Your task to perform on an android device: turn on showing notifications on the lock screen Image 0: 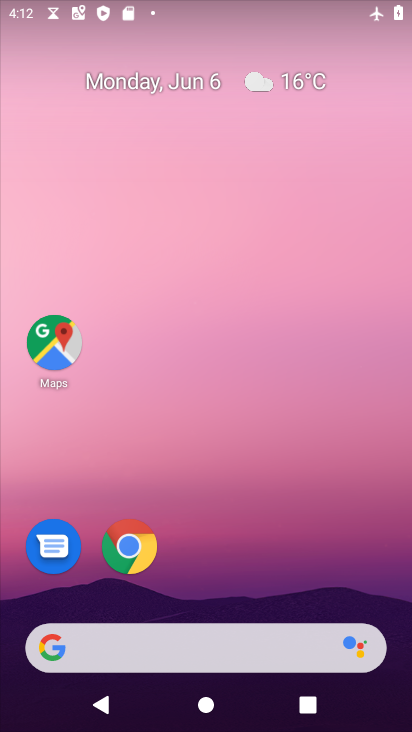
Step 0: drag from (296, 483) to (386, 55)
Your task to perform on an android device: turn on showing notifications on the lock screen Image 1: 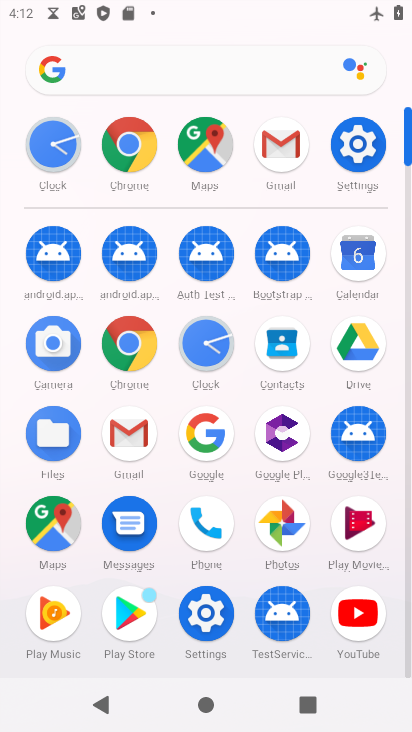
Step 1: click (356, 162)
Your task to perform on an android device: turn on showing notifications on the lock screen Image 2: 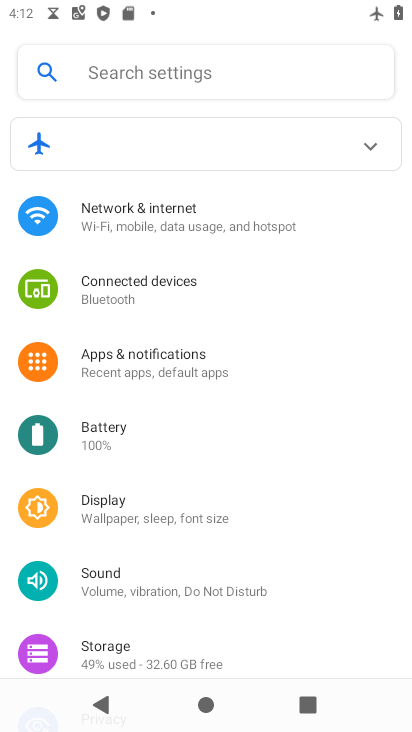
Step 2: click (133, 361)
Your task to perform on an android device: turn on showing notifications on the lock screen Image 3: 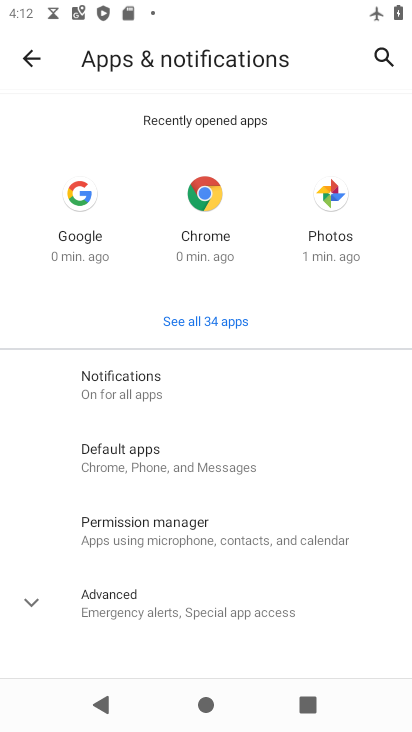
Step 3: click (133, 409)
Your task to perform on an android device: turn on showing notifications on the lock screen Image 4: 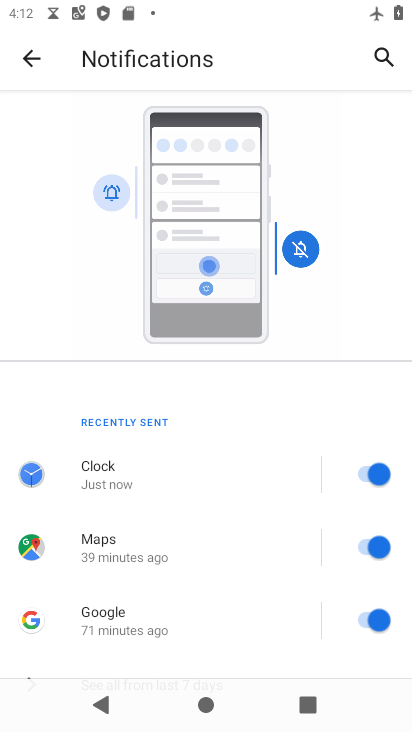
Step 4: drag from (175, 600) to (315, 137)
Your task to perform on an android device: turn on showing notifications on the lock screen Image 5: 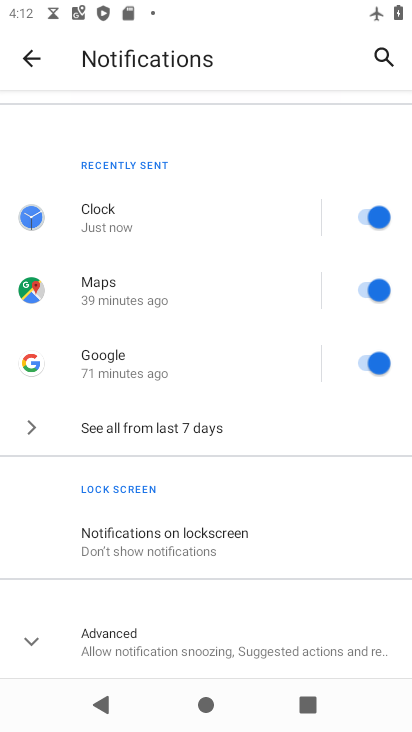
Step 5: click (147, 537)
Your task to perform on an android device: turn on showing notifications on the lock screen Image 6: 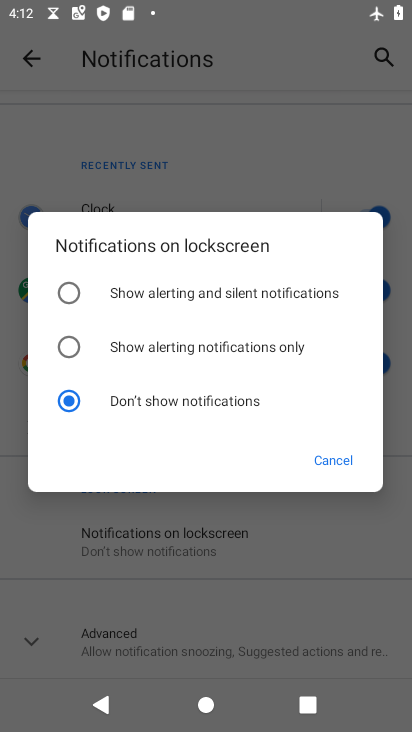
Step 6: click (76, 296)
Your task to perform on an android device: turn on showing notifications on the lock screen Image 7: 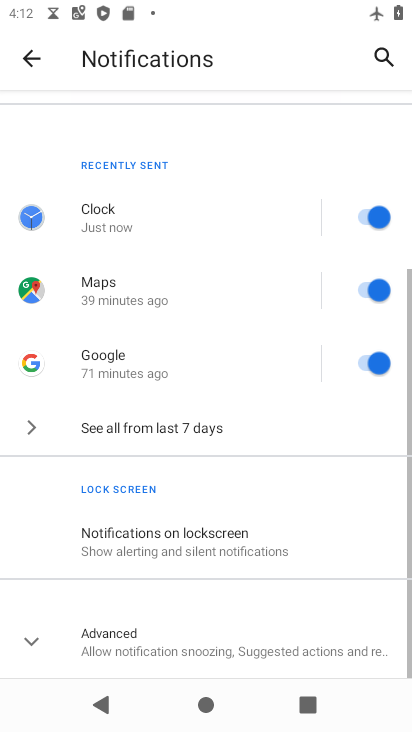
Step 7: click (54, 354)
Your task to perform on an android device: turn on showing notifications on the lock screen Image 8: 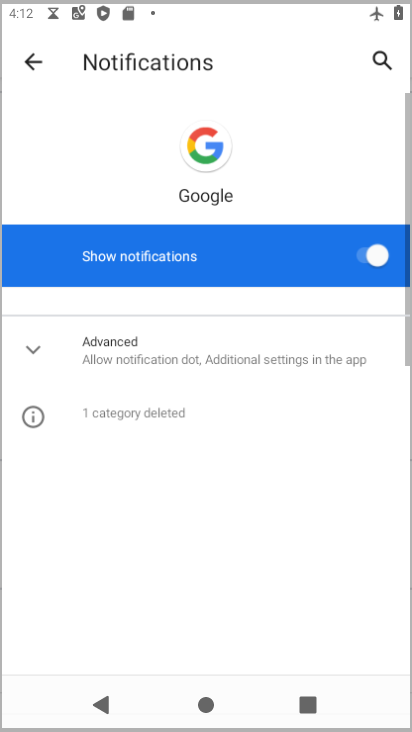
Step 8: click (120, 533)
Your task to perform on an android device: turn on showing notifications on the lock screen Image 9: 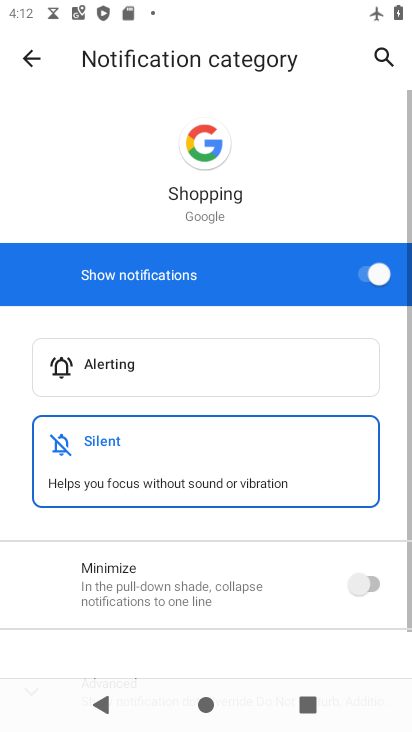
Step 9: click (47, 54)
Your task to perform on an android device: turn on showing notifications on the lock screen Image 10: 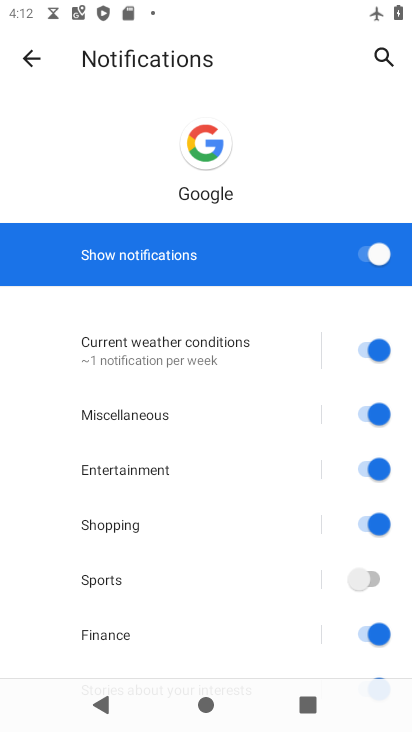
Step 10: click (43, 74)
Your task to perform on an android device: turn on showing notifications on the lock screen Image 11: 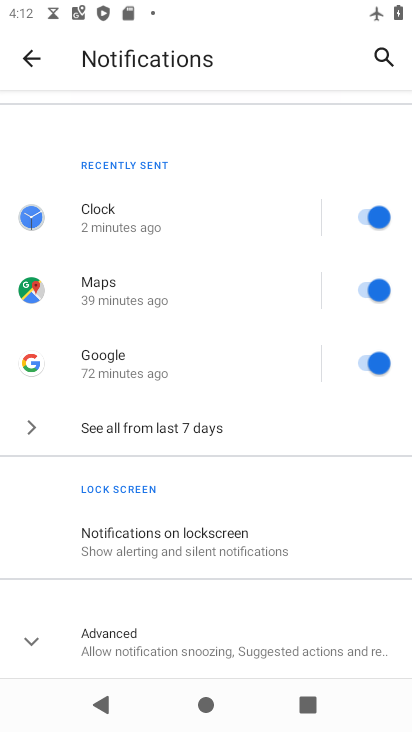
Step 11: click (185, 539)
Your task to perform on an android device: turn on showing notifications on the lock screen Image 12: 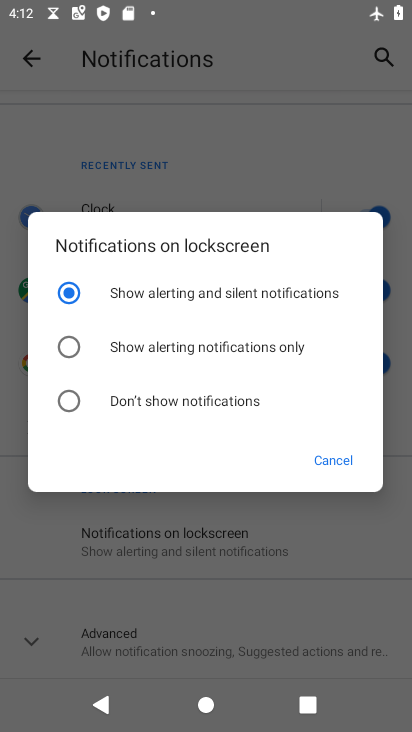
Step 12: click (158, 347)
Your task to perform on an android device: turn on showing notifications on the lock screen Image 13: 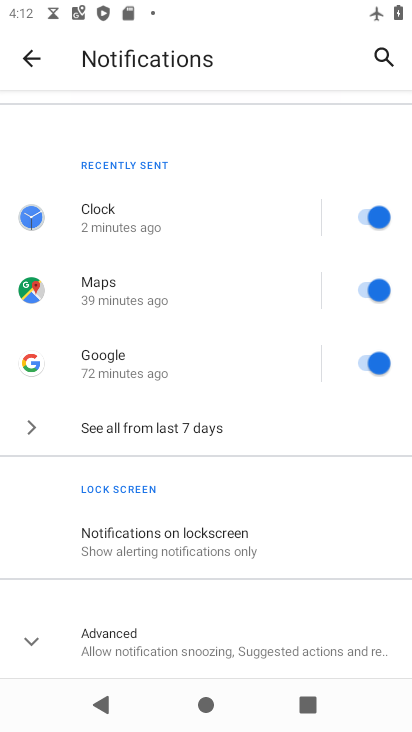
Step 13: task complete